Your task to perform on an android device: change alarm snooze length Image 0: 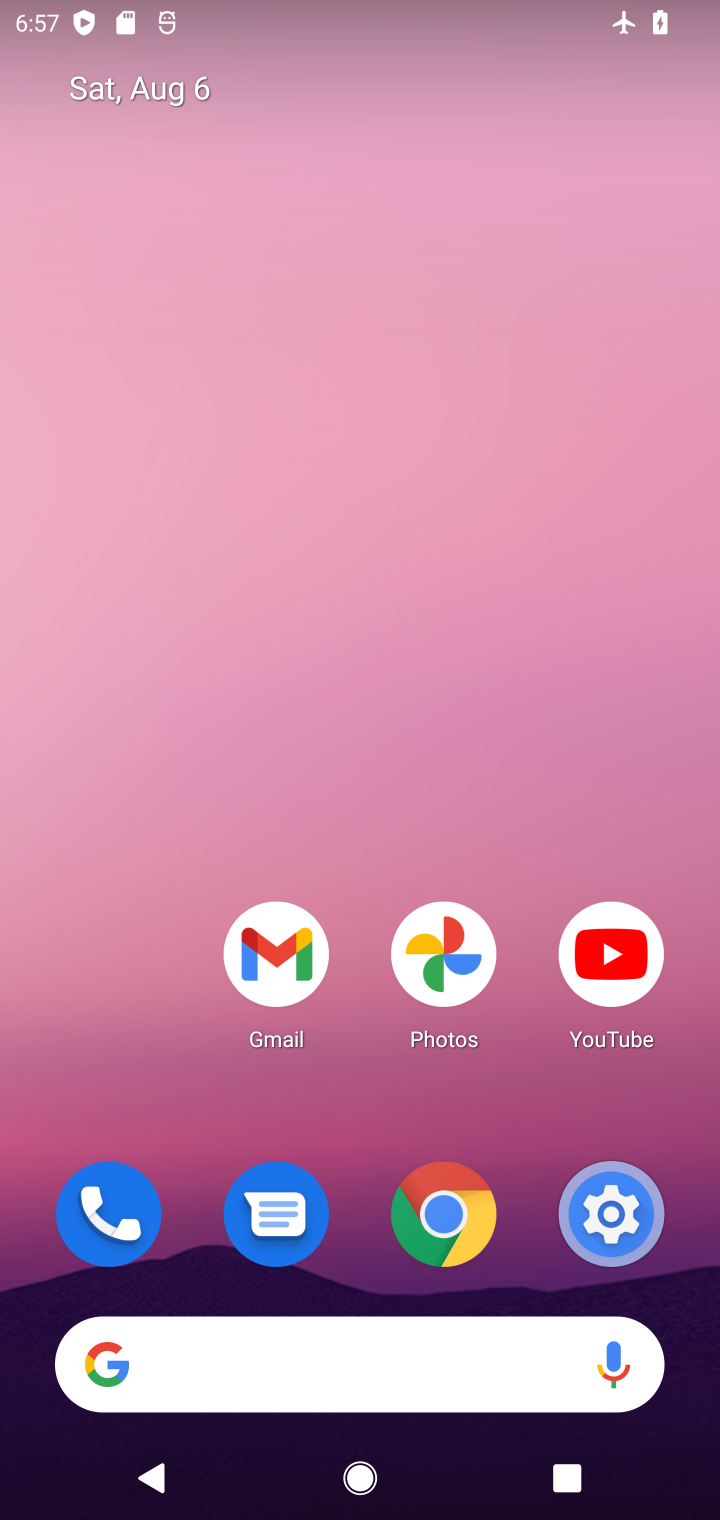
Step 0: drag from (349, 854) to (364, 509)
Your task to perform on an android device: change alarm snooze length Image 1: 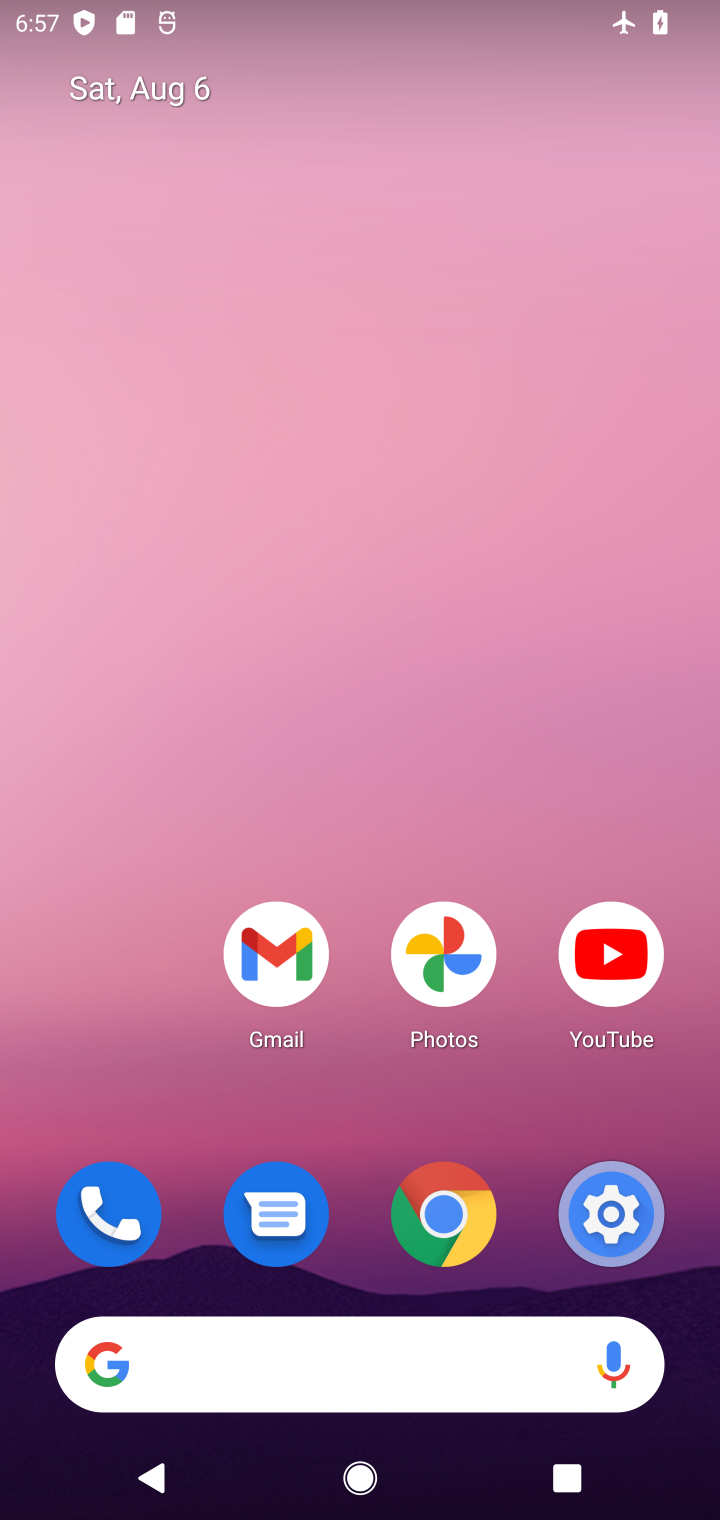
Step 1: drag from (366, 1144) to (350, 457)
Your task to perform on an android device: change alarm snooze length Image 2: 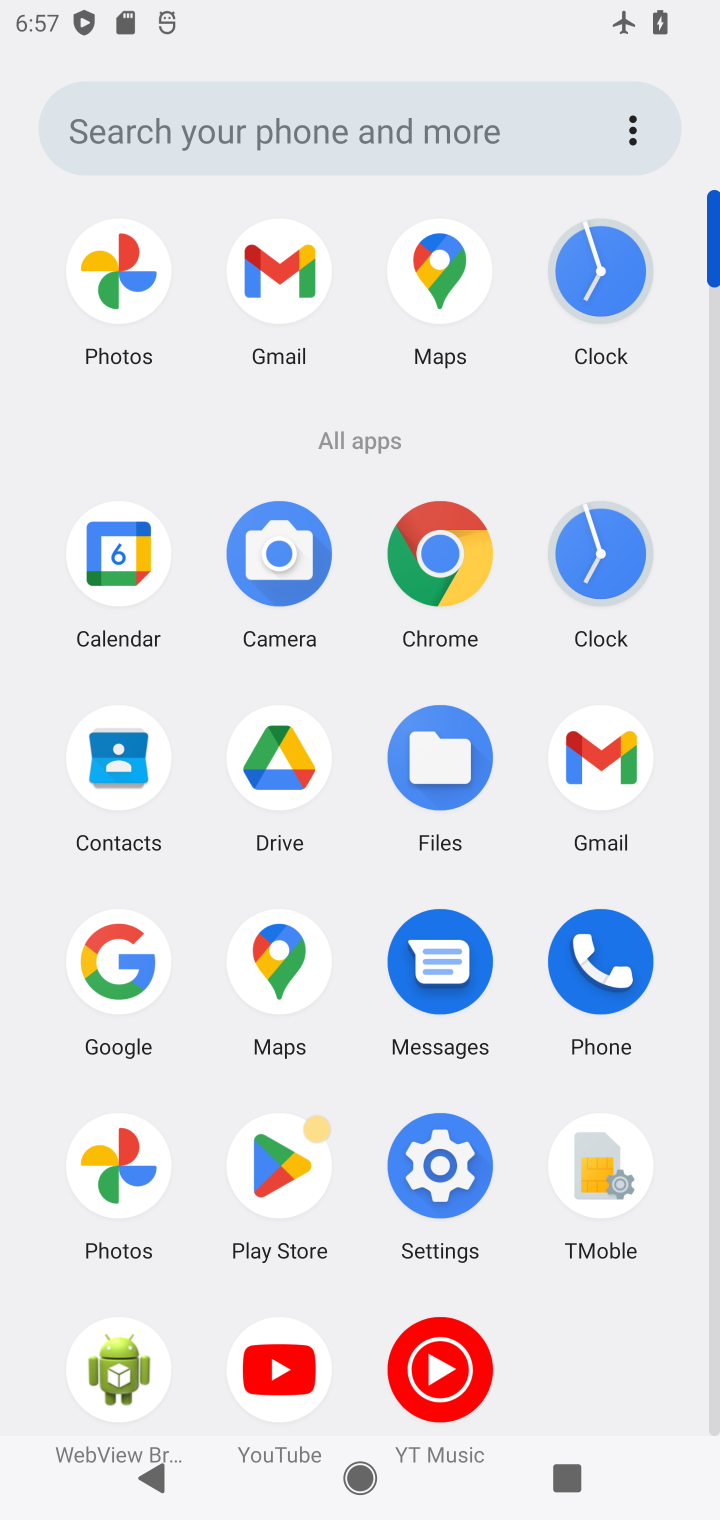
Step 2: click (623, 582)
Your task to perform on an android device: change alarm snooze length Image 3: 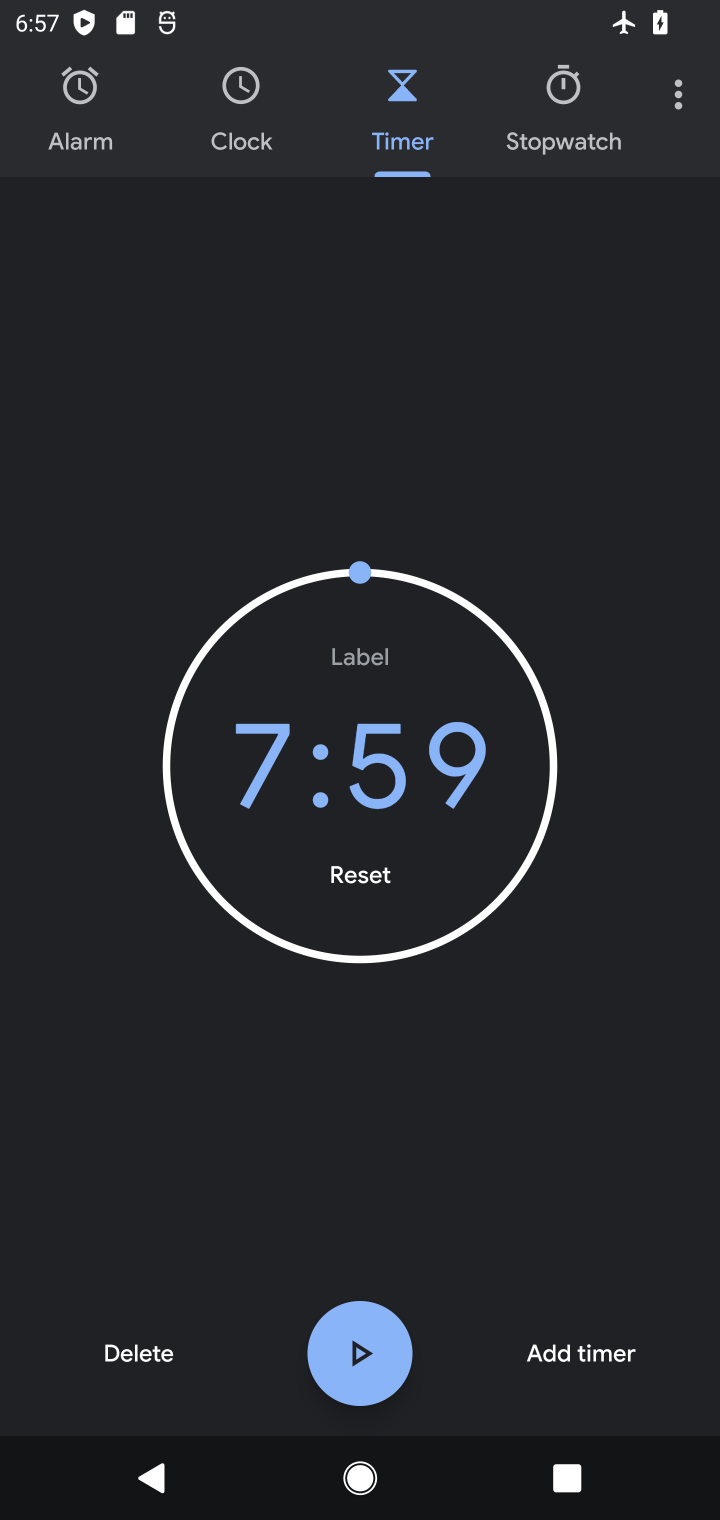
Step 3: click (673, 93)
Your task to perform on an android device: change alarm snooze length Image 4: 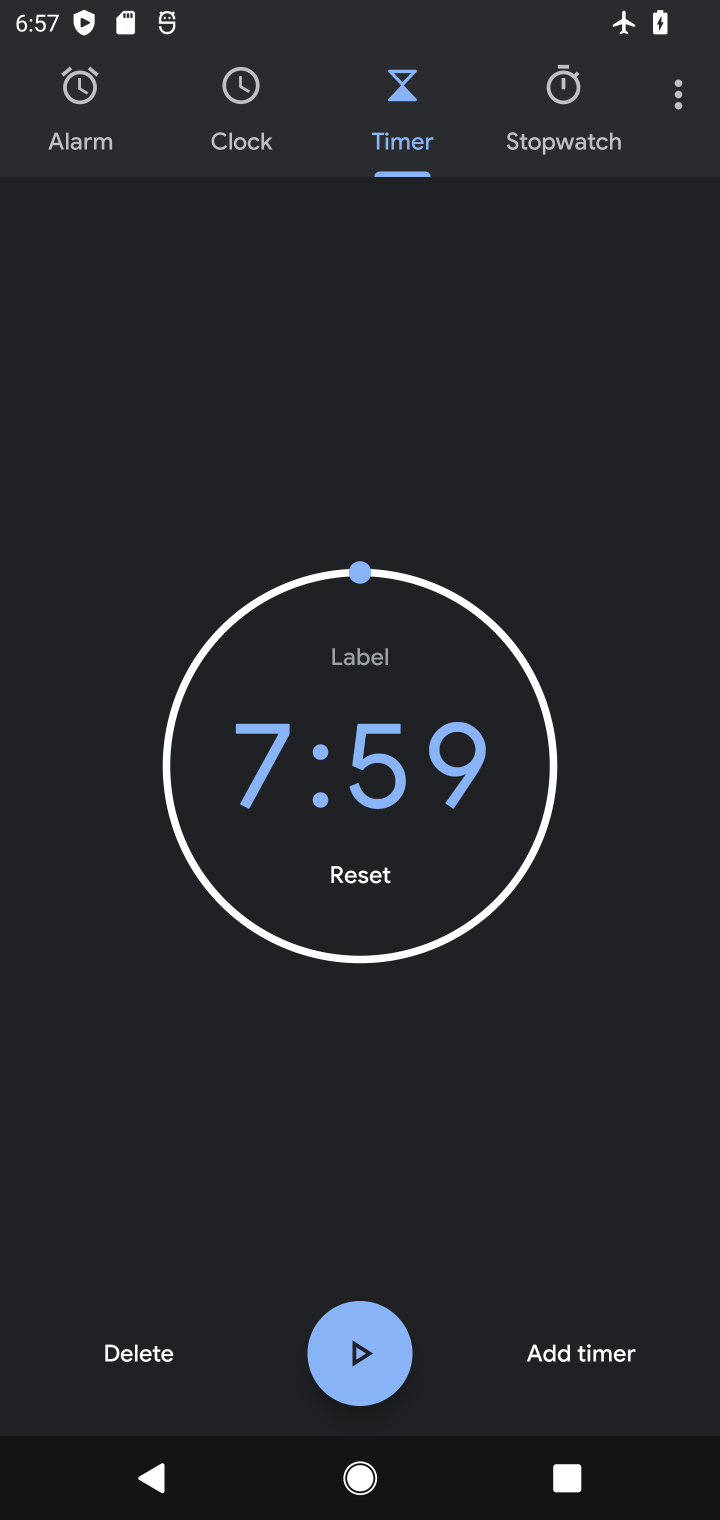
Step 4: click (671, 92)
Your task to perform on an android device: change alarm snooze length Image 5: 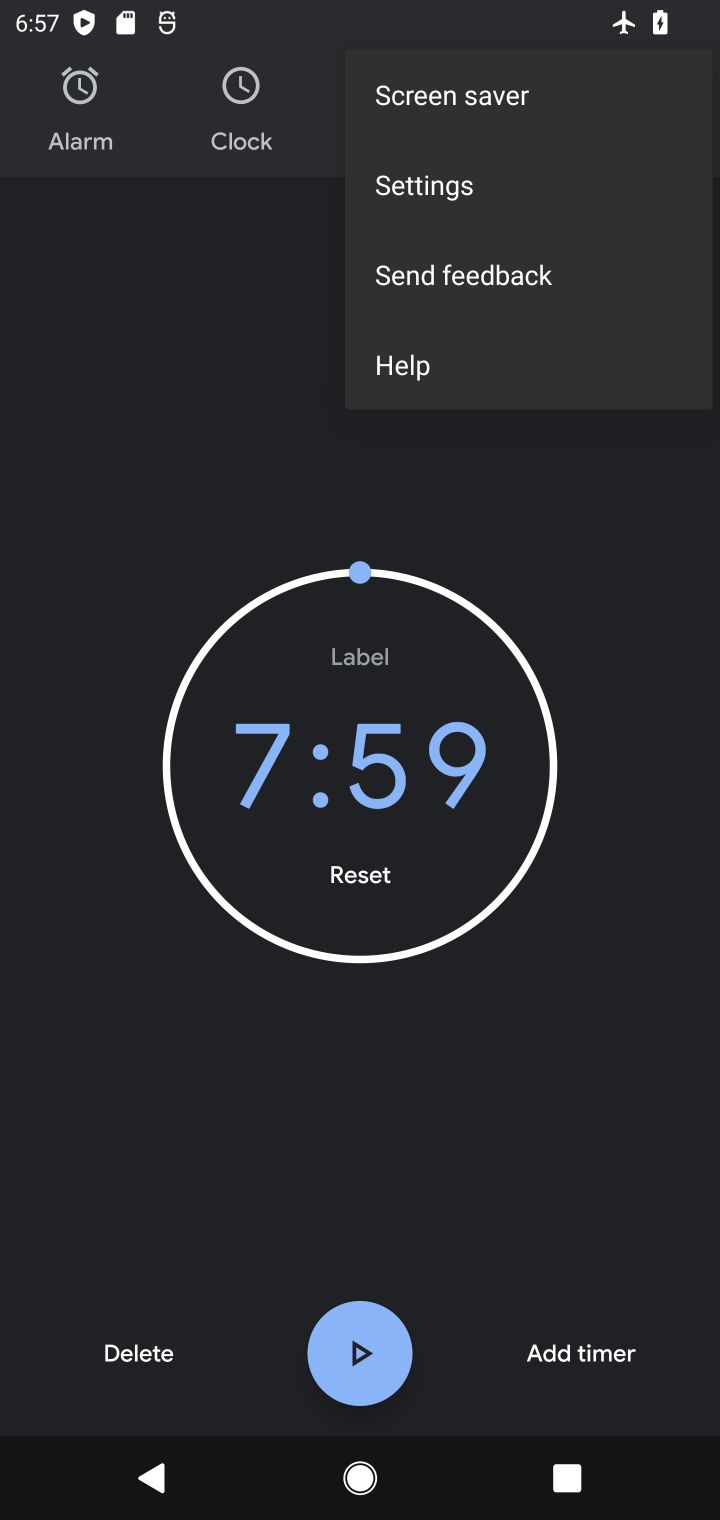
Step 5: click (427, 197)
Your task to perform on an android device: change alarm snooze length Image 6: 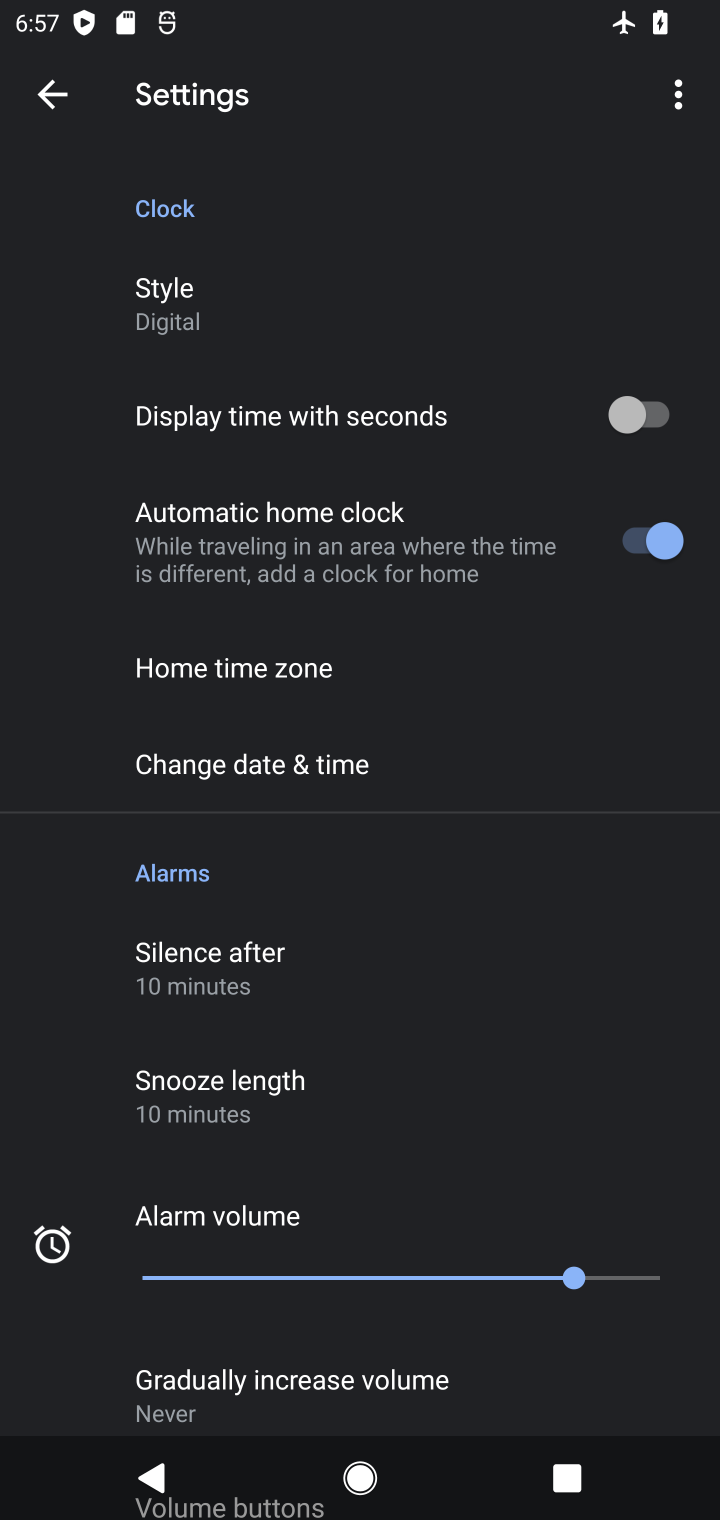
Step 6: click (241, 1104)
Your task to perform on an android device: change alarm snooze length Image 7: 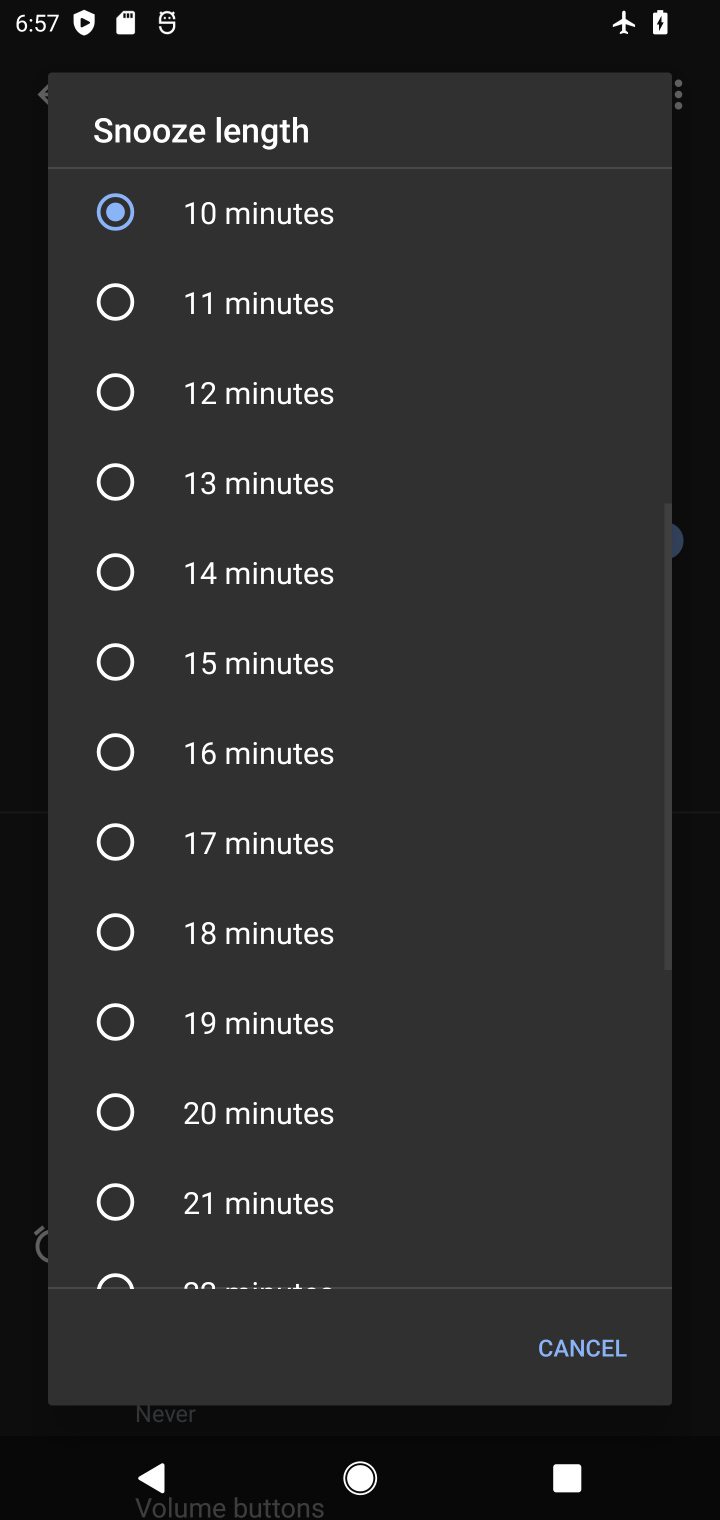
Step 7: click (182, 673)
Your task to perform on an android device: change alarm snooze length Image 8: 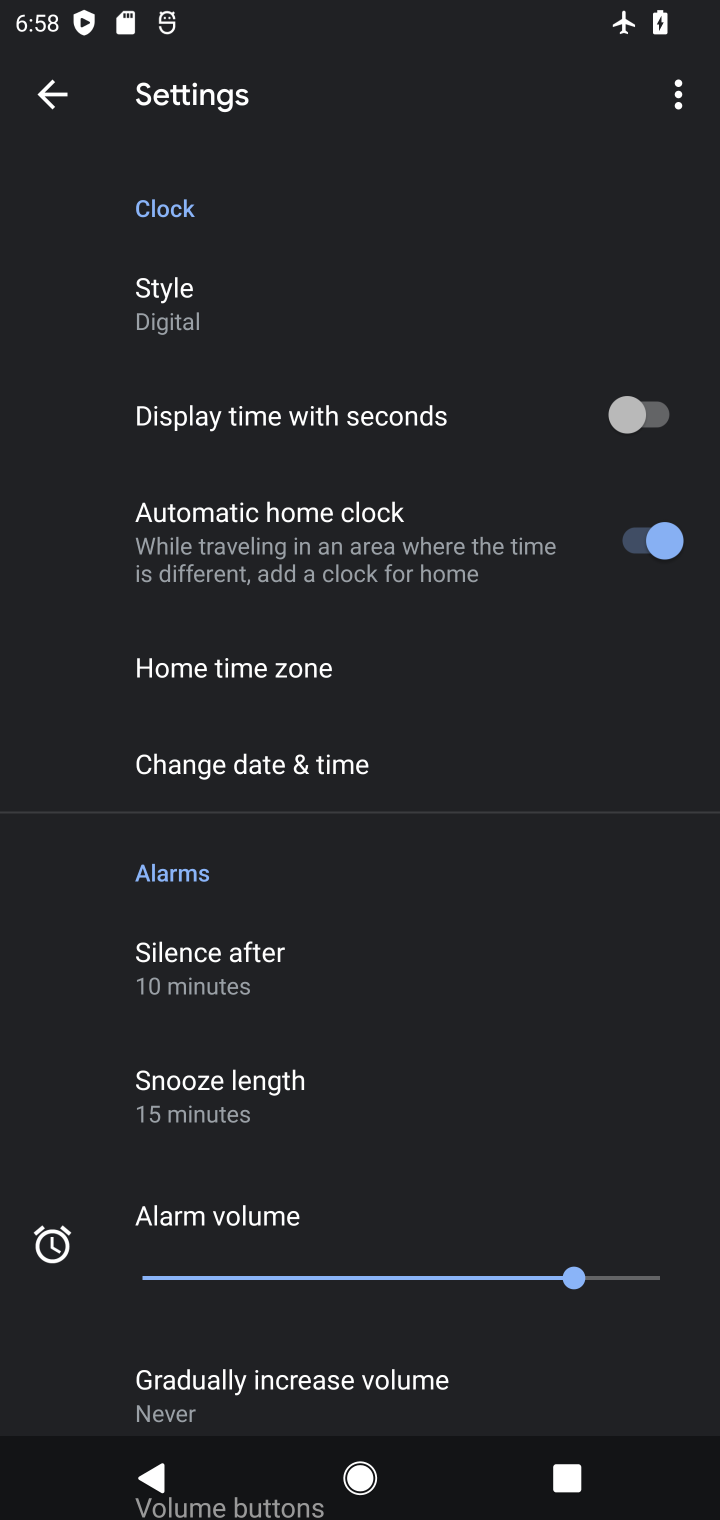
Step 8: task complete